Your task to perform on an android device: allow notifications from all sites in the chrome app Image 0: 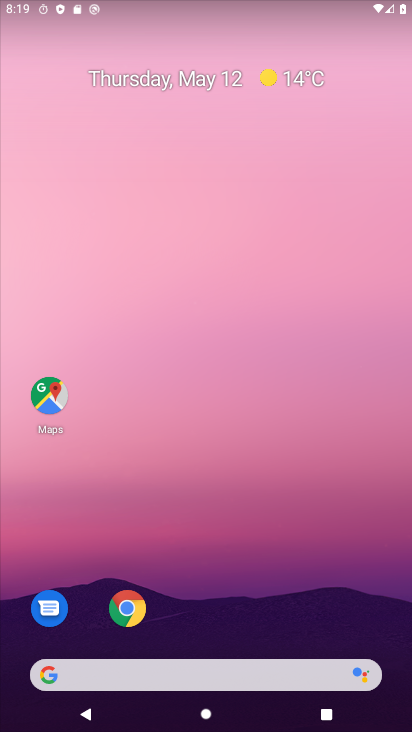
Step 0: click (126, 609)
Your task to perform on an android device: allow notifications from all sites in the chrome app Image 1: 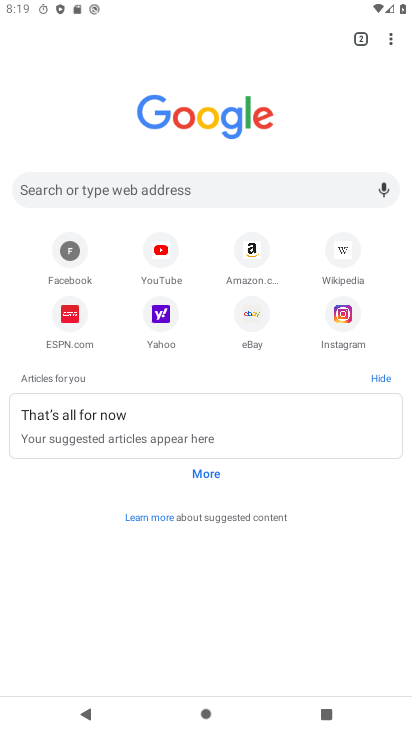
Step 1: click (391, 34)
Your task to perform on an android device: allow notifications from all sites in the chrome app Image 2: 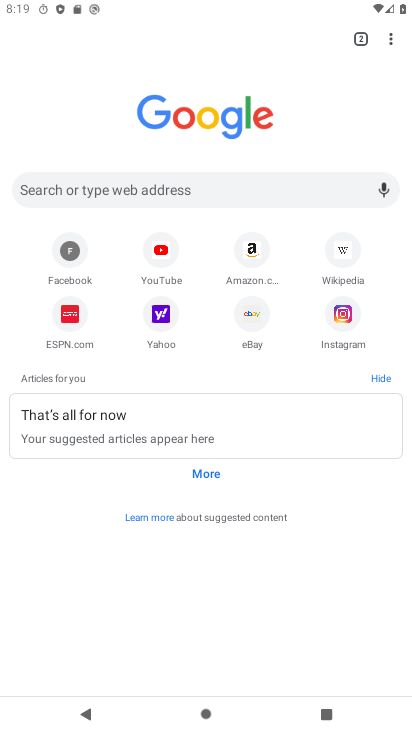
Step 2: click (391, 34)
Your task to perform on an android device: allow notifications from all sites in the chrome app Image 3: 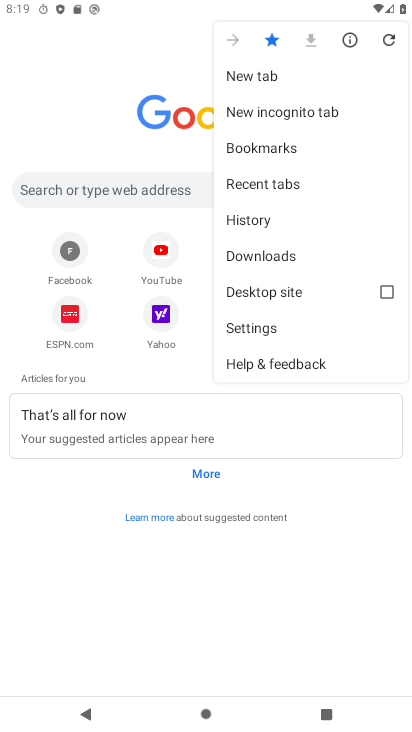
Step 3: click (263, 332)
Your task to perform on an android device: allow notifications from all sites in the chrome app Image 4: 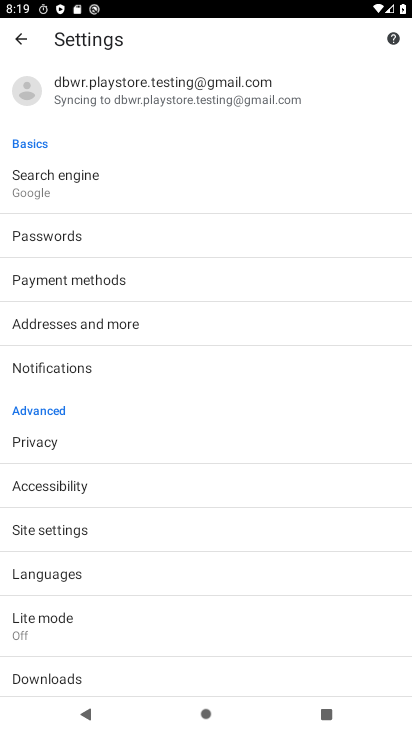
Step 4: click (62, 374)
Your task to perform on an android device: allow notifications from all sites in the chrome app Image 5: 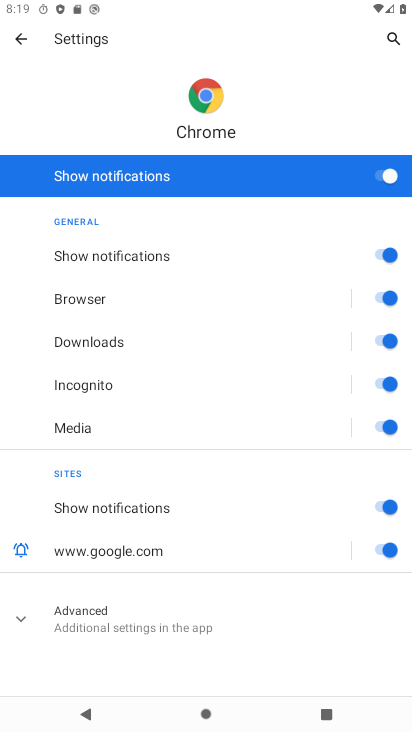
Step 5: task complete